Your task to perform on an android device: find snoozed emails in the gmail app Image 0: 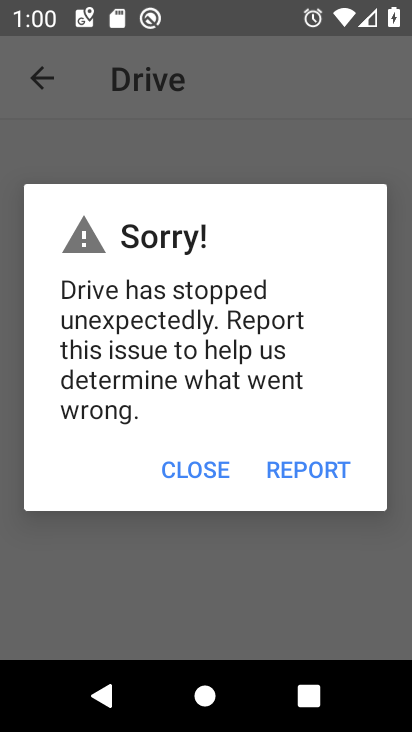
Step 0: press home button
Your task to perform on an android device: find snoozed emails in the gmail app Image 1: 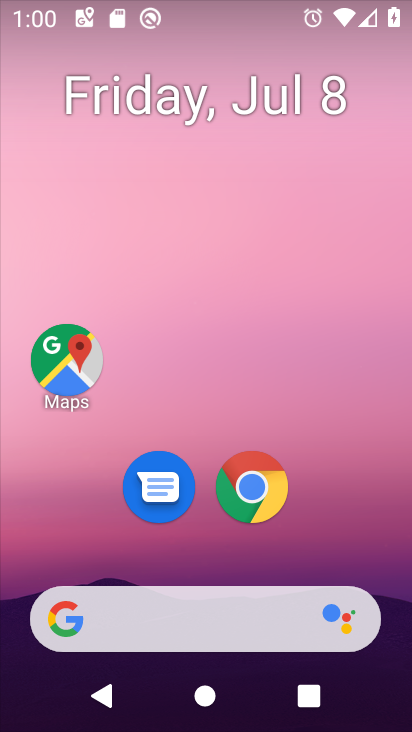
Step 1: drag from (360, 535) to (356, 143)
Your task to perform on an android device: find snoozed emails in the gmail app Image 2: 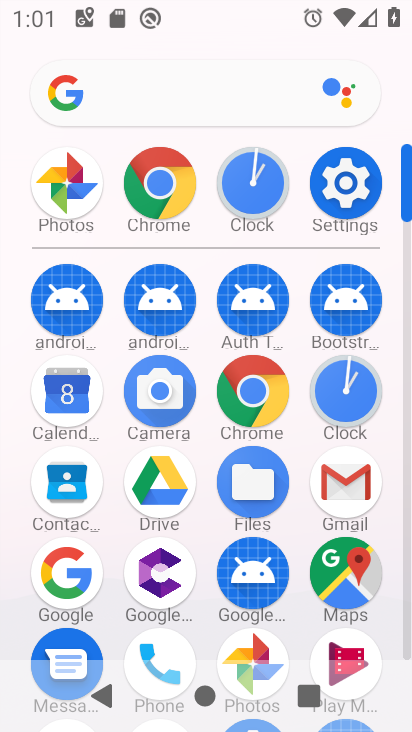
Step 2: click (352, 486)
Your task to perform on an android device: find snoozed emails in the gmail app Image 3: 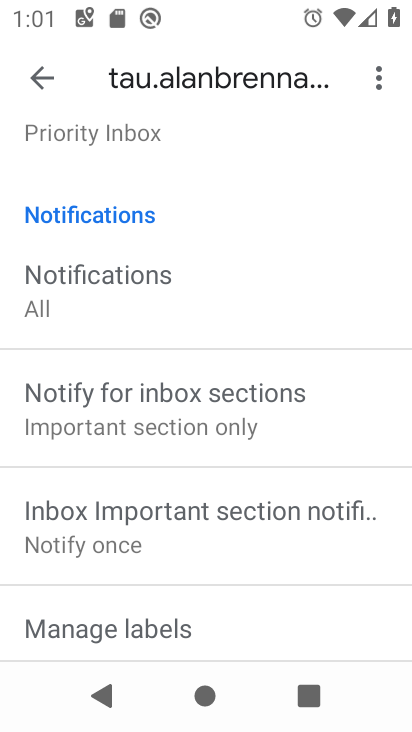
Step 3: press back button
Your task to perform on an android device: find snoozed emails in the gmail app Image 4: 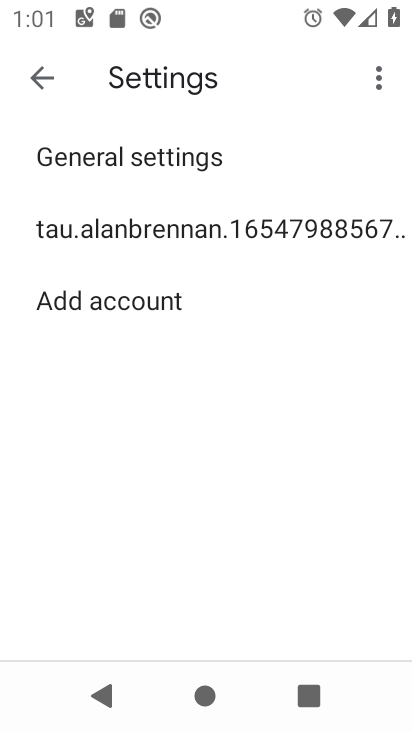
Step 4: press back button
Your task to perform on an android device: find snoozed emails in the gmail app Image 5: 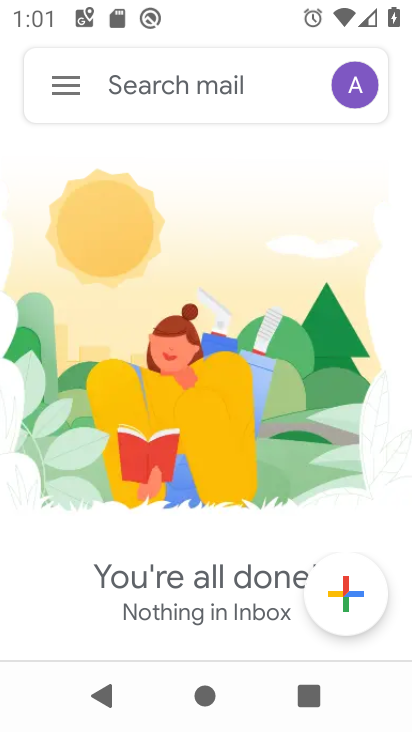
Step 5: click (74, 83)
Your task to perform on an android device: find snoozed emails in the gmail app Image 6: 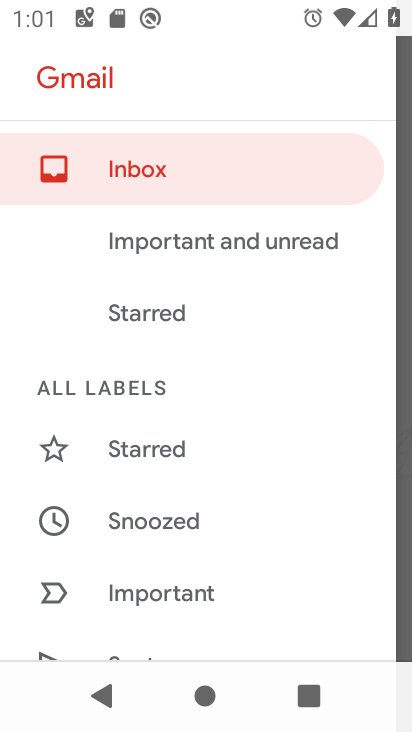
Step 6: drag from (300, 443) to (312, 324)
Your task to perform on an android device: find snoozed emails in the gmail app Image 7: 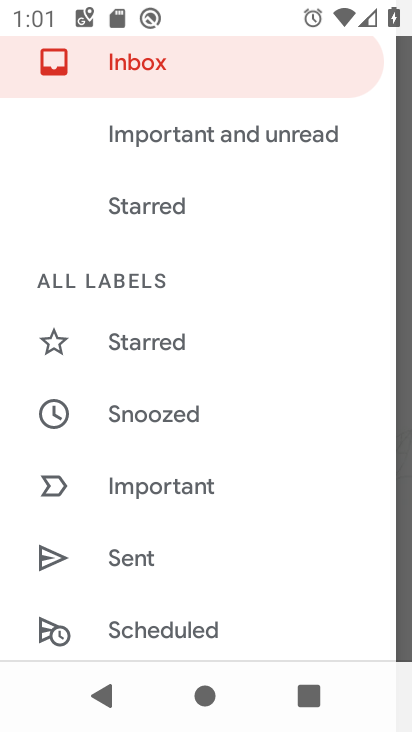
Step 7: drag from (332, 456) to (353, 288)
Your task to perform on an android device: find snoozed emails in the gmail app Image 8: 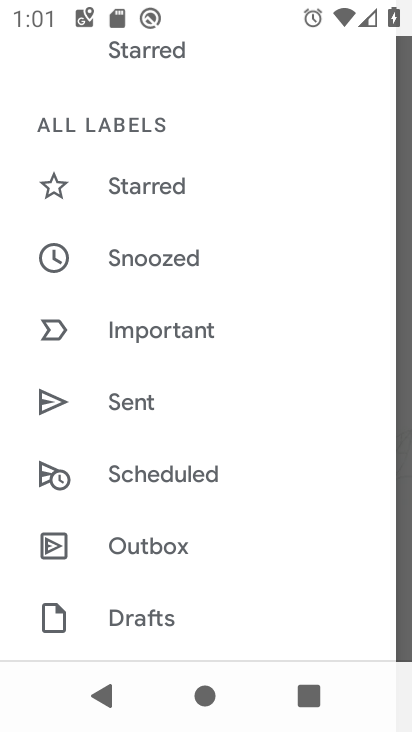
Step 8: drag from (294, 525) to (296, 317)
Your task to perform on an android device: find snoozed emails in the gmail app Image 9: 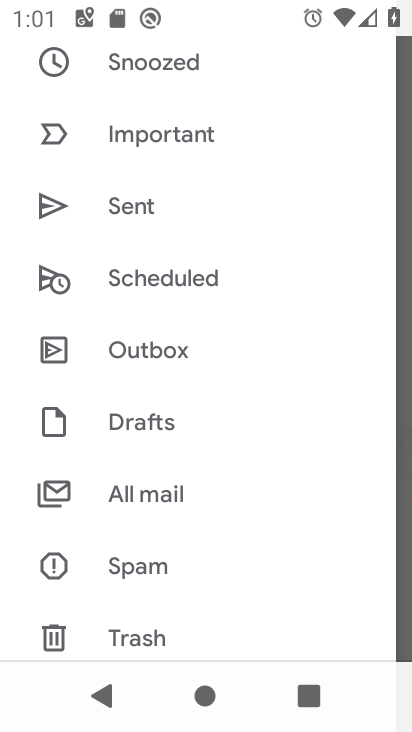
Step 9: drag from (336, 545) to (330, 436)
Your task to perform on an android device: find snoozed emails in the gmail app Image 10: 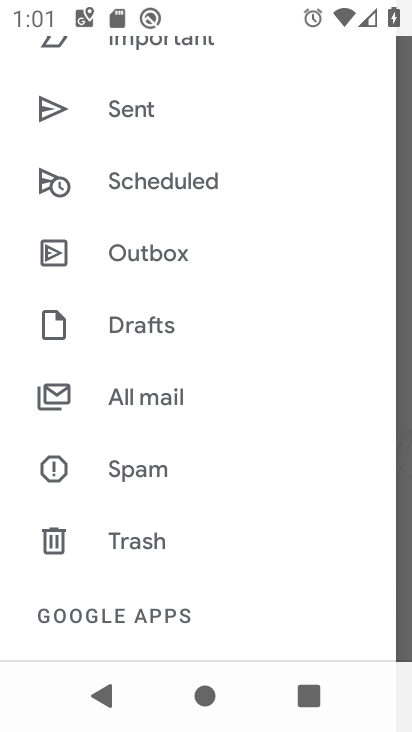
Step 10: drag from (314, 256) to (315, 428)
Your task to perform on an android device: find snoozed emails in the gmail app Image 11: 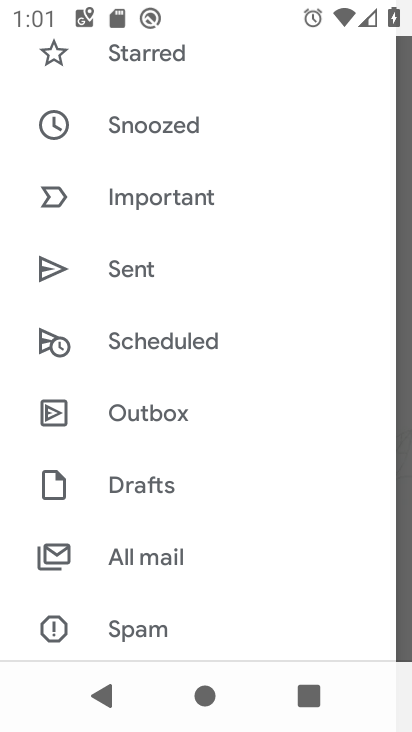
Step 11: click (208, 137)
Your task to perform on an android device: find snoozed emails in the gmail app Image 12: 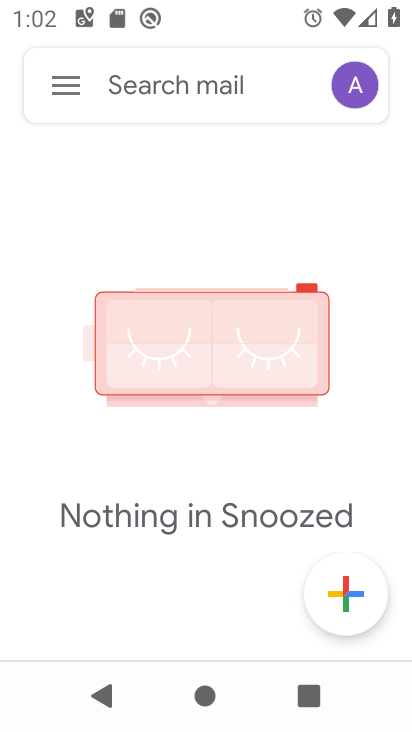
Step 12: task complete